Your task to perform on an android device: What's the weather? Image 0: 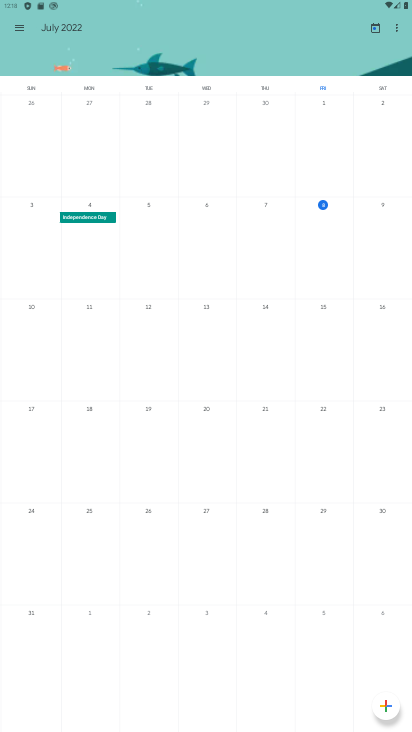
Step 0: press home button
Your task to perform on an android device: What's the weather? Image 1: 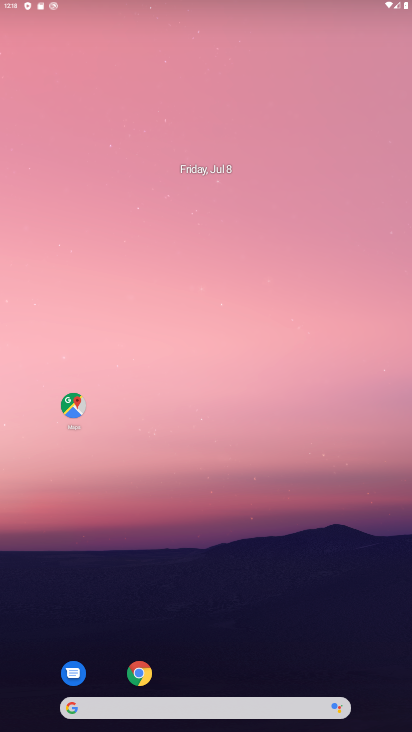
Step 1: drag from (205, 638) to (212, 73)
Your task to perform on an android device: What's the weather? Image 2: 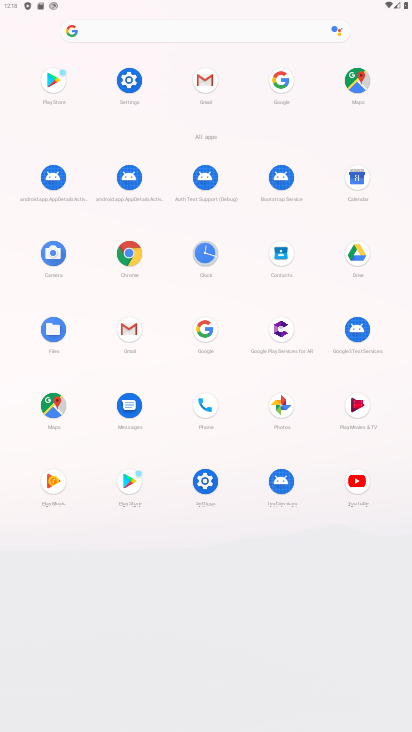
Step 2: click (206, 333)
Your task to perform on an android device: What's the weather? Image 3: 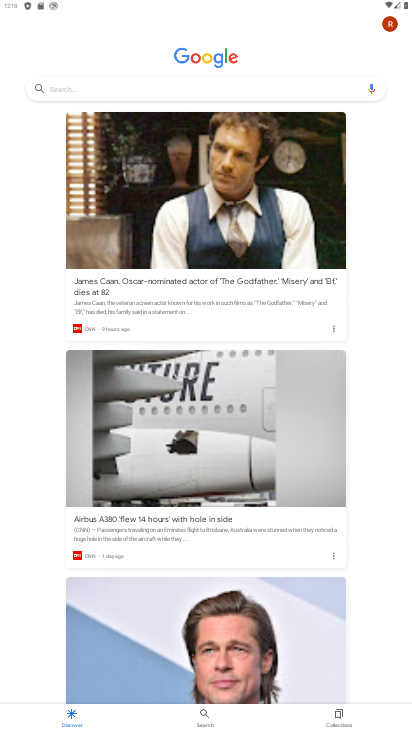
Step 3: click (159, 89)
Your task to perform on an android device: What's the weather? Image 4: 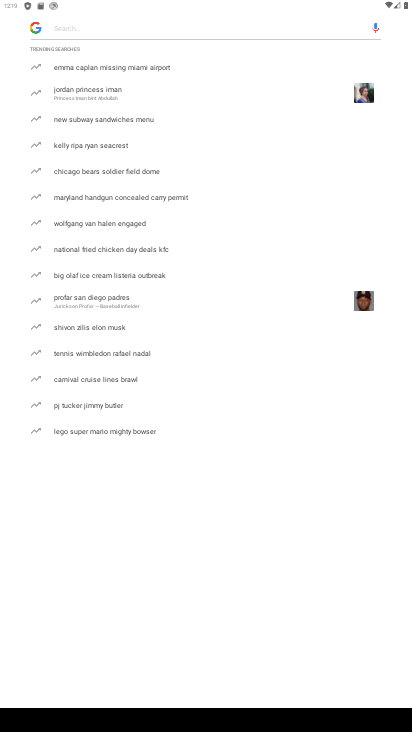
Step 4: type "whats the weather"
Your task to perform on an android device: What's the weather? Image 5: 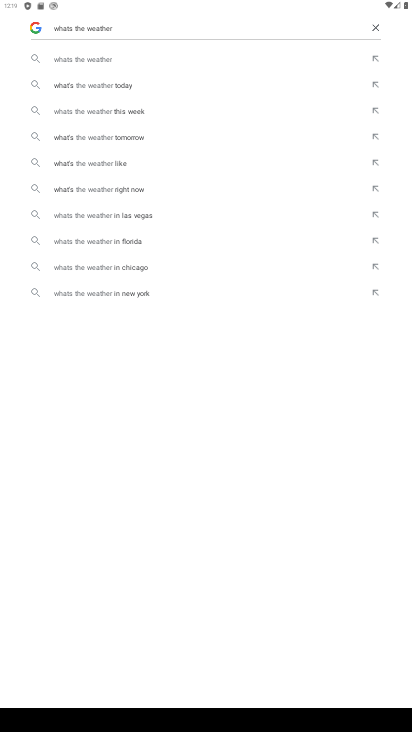
Step 5: click (79, 58)
Your task to perform on an android device: What's the weather? Image 6: 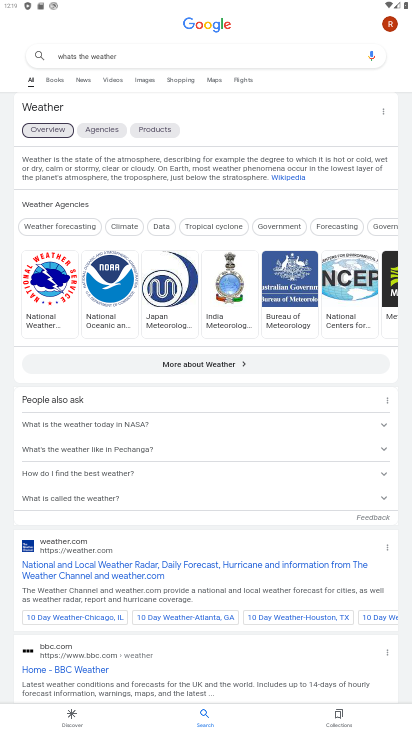
Step 6: task complete